Your task to perform on an android device: turn vacation reply on in the gmail app Image 0: 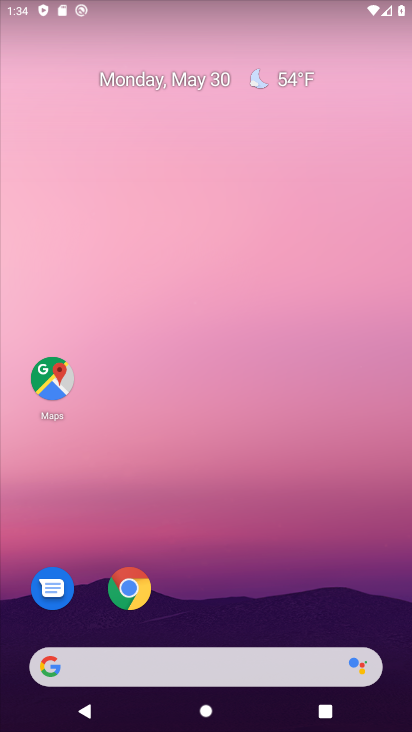
Step 0: click (136, 586)
Your task to perform on an android device: turn vacation reply on in the gmail app Image 1: 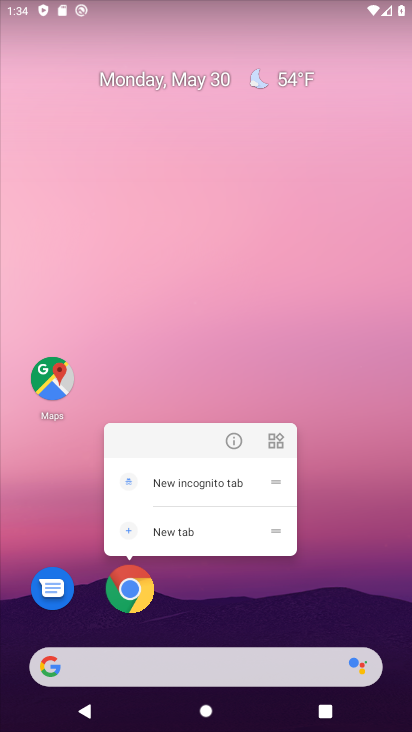
Step 1: click (228, 586)
Your task to perform on an android device: turn vacation reply on in the gmail app Image 2: 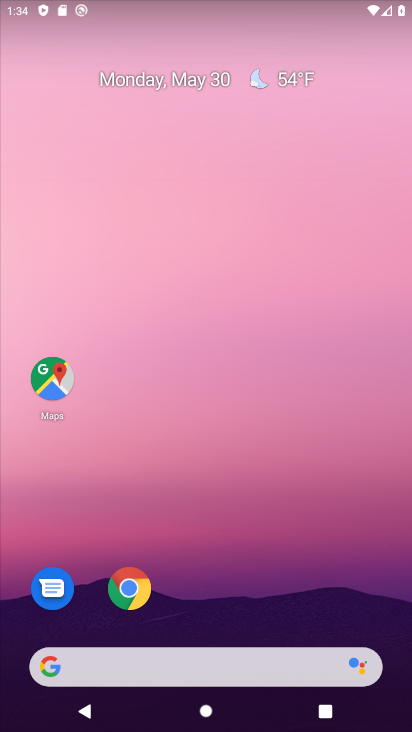
Step 2: drag from (228, 583) to (215, 105)
Your task to perform on an android device: turn vacation reply on in the gmail app Image 3: 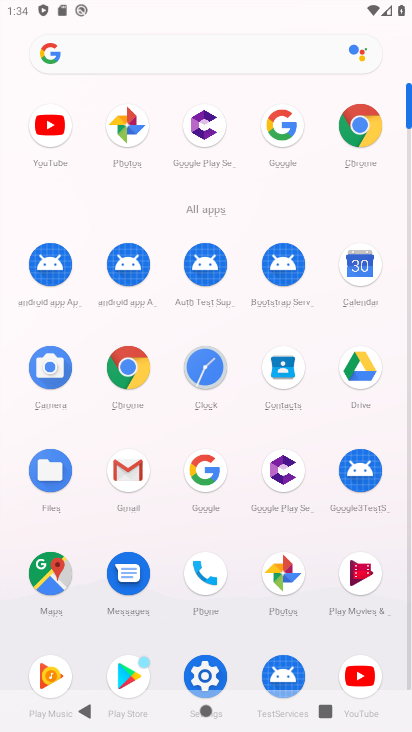
Step 3: click (126, 465)
Your task to perform on an android device: turn vacation reply on in the gmail app Image 4: 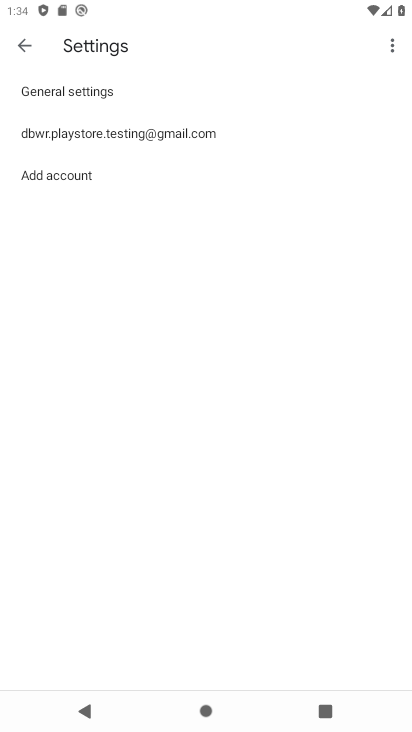
Step 4: click (130, 137)
Your task to perform on an android device: turn vacation reply on in the gmail app Image 5: 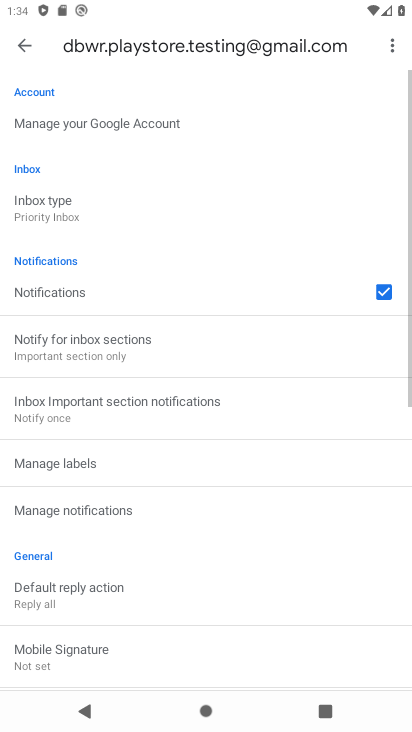
Step 5: drag from (170, 581) to (156, 267)
Your task to perform on an android device: turn vacation reply on in the gmail app Image 6: 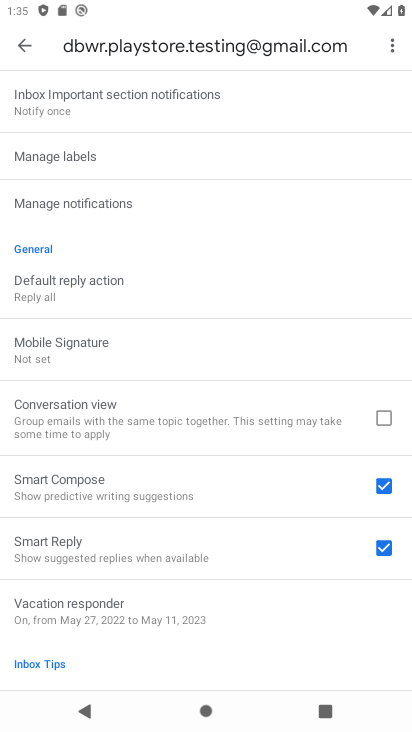
Step 6: click (114, 603)
Your task to perform on an android device: turn vacation reply on in the gmail app Image 7: 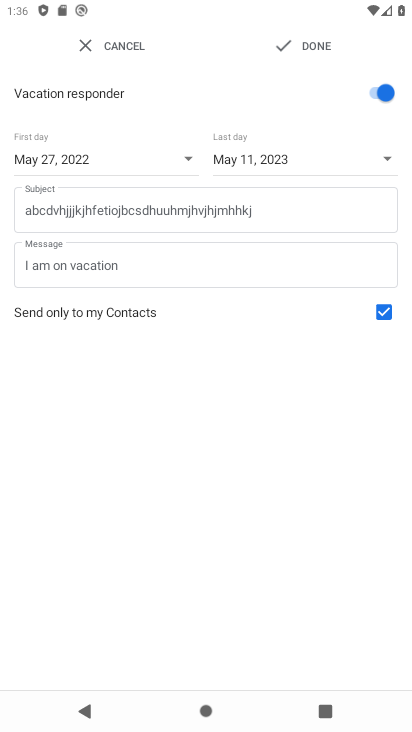
Step 7: task complete